Your task to perform on an android device: add a contact in the contacts app Image 0: 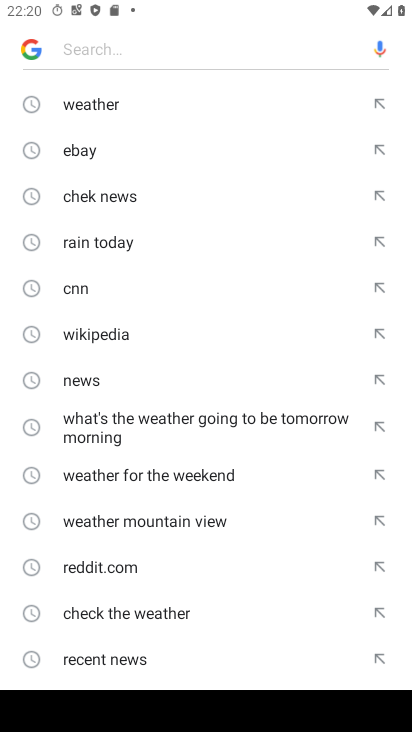
Step 0: press back button
Your task to perform on an android device: add a contact in the contacts app Image 1: 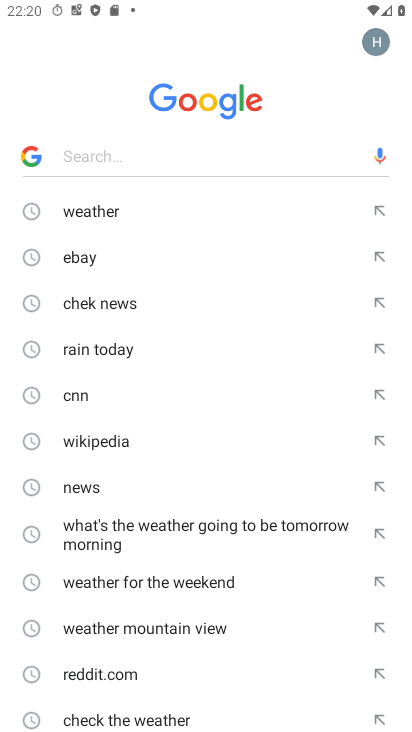
Step 1: press back button
Your task to perform on an android device: add a contact in the contacts app Image 2: 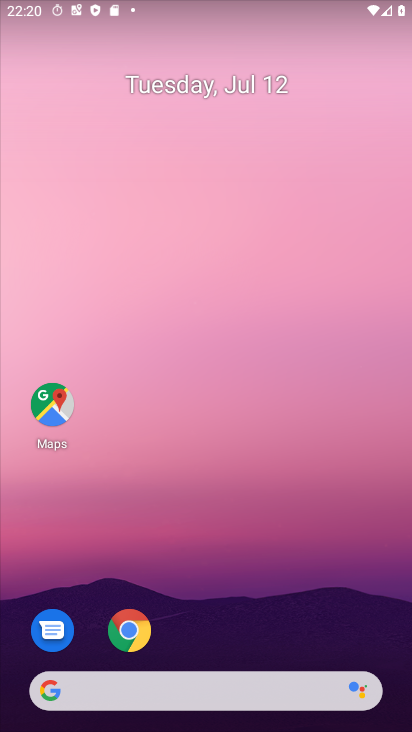
Step 2: drag from (255, 604) to (287, 16)
Your task to perform on an android device: add a contact in the contacts app Image 3: 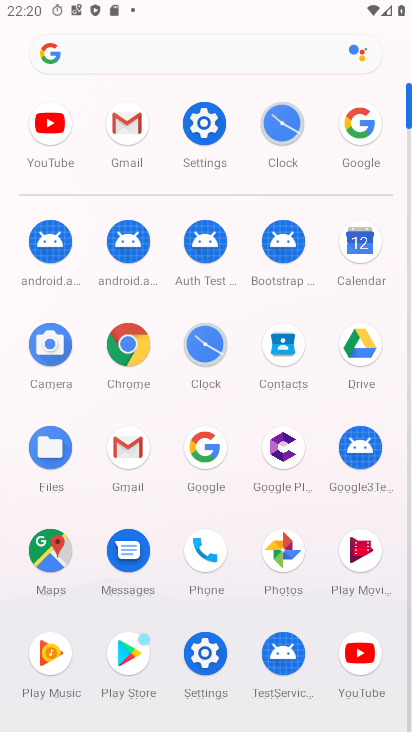
Step 3: click (283, 352)
Your task to perform on an android device: add a contact in the contacts app Image 4: 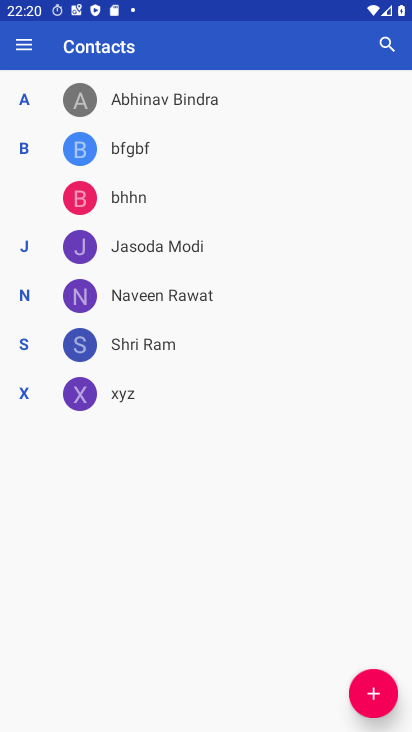
Step 4: click (376, 682)
Your task to perform on an android device: add a contact in the contacts app Image 5: 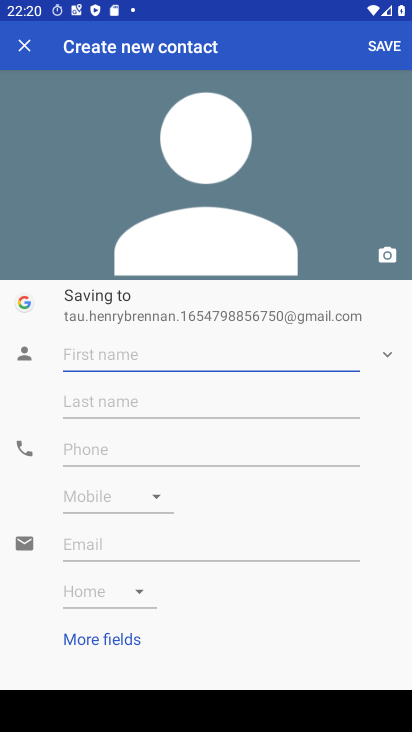
Step 5: click (129, 347)
Your task to perform on an android device: add a contact in the contacts app Image 6: 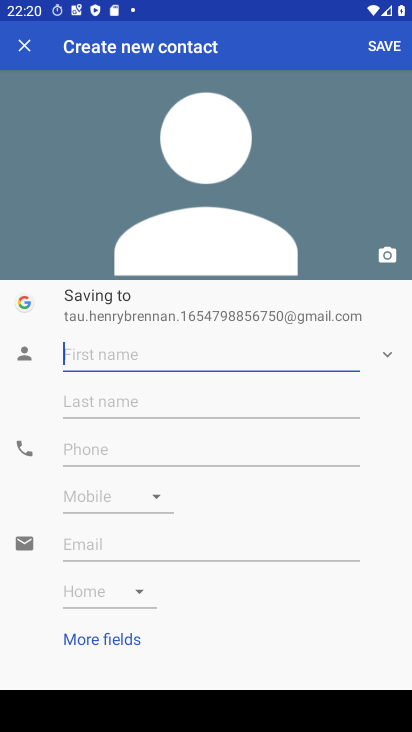
Step 6: type "vfbgb"
Your task to perform on an android device: add a contact in the contacts app Image 7: 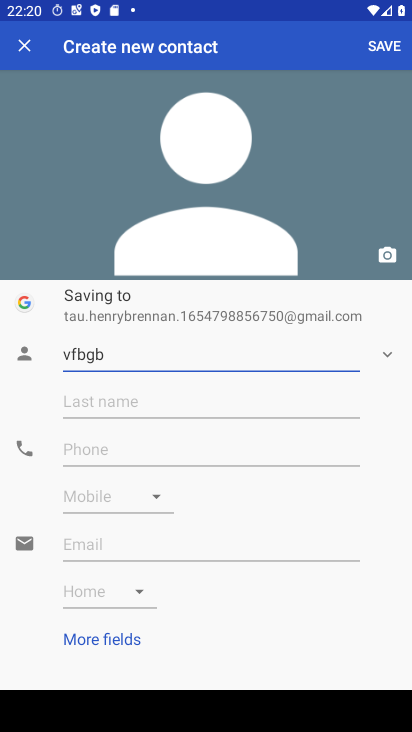
Step 7: click (80, 445)
Your task to perform on an android device: add a contact in the contacts app Image 8: 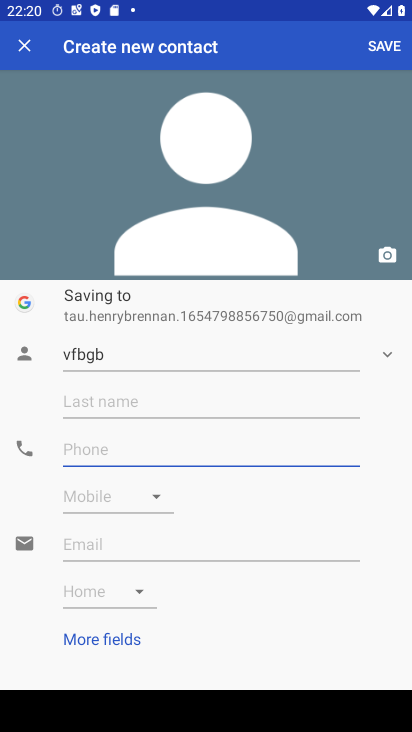
Step 8: type "777775"
Your task to perform on an android device: add a contact in the contacts app Image 9: 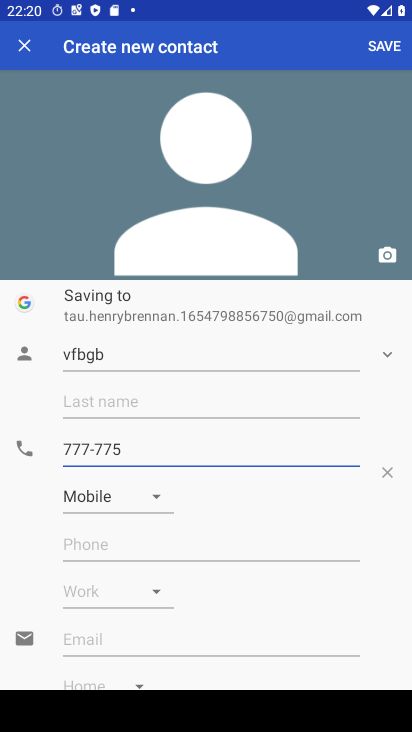
Step 9: click (391, 48)
Your task to perform on an android device: add a contact in the contacts app Image 10: 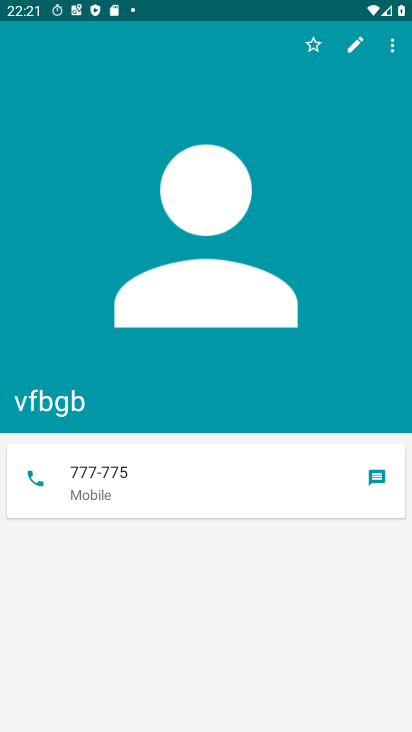
Step 10: task complete